Your task to perform on an android device: turn on improve location accuracy Image 0: 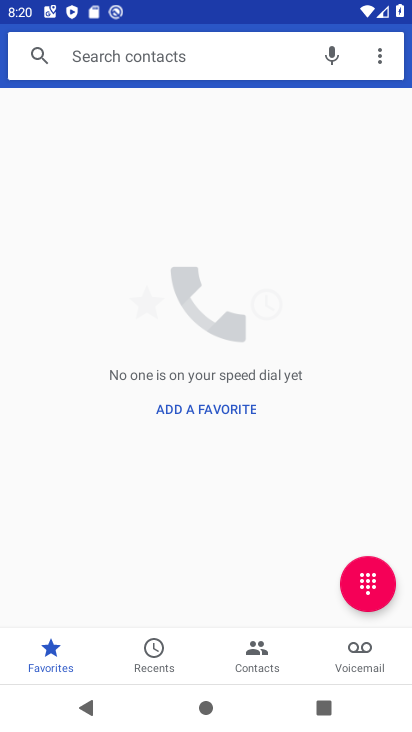
Step 0: press home button
Your task to perform on an android device: turn on improve location accuracy Image 1: 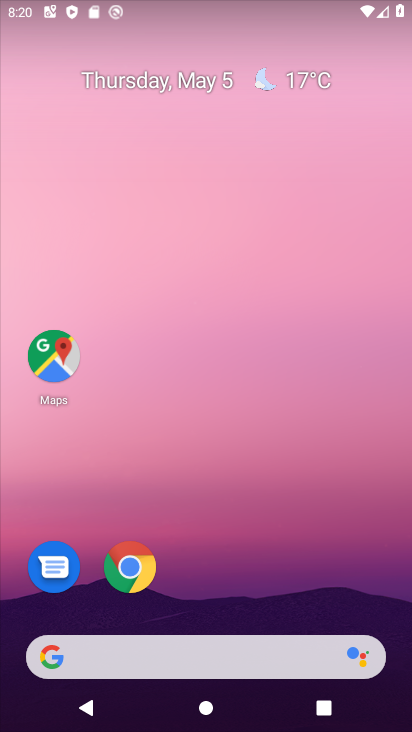
Step 1: drag from (229, 564) to (221, 33)
Your task to perform on an android device: turn on improve location accuracy Image 2: 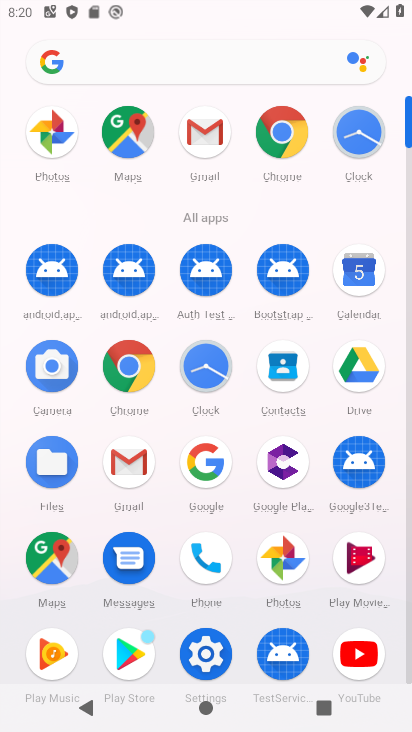
Step 2: click (206, 646)
Your task to perform on an android device: turn on improve location accuracy Image 3: 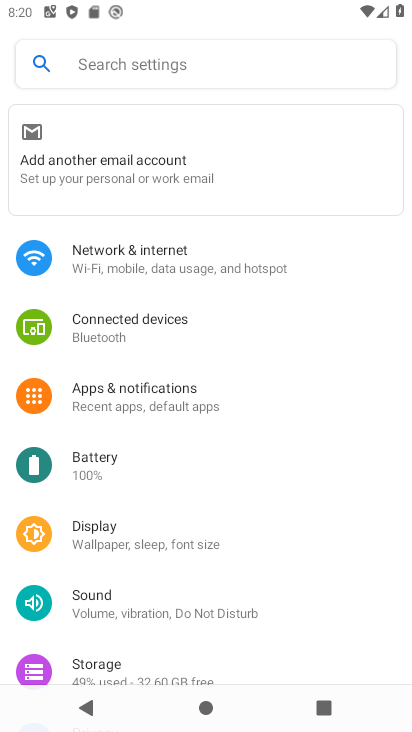
Step 3: drag from (303, 644) to (296, 226)
Your task to perform on an android device: turn on improve location accuracy Image 4: 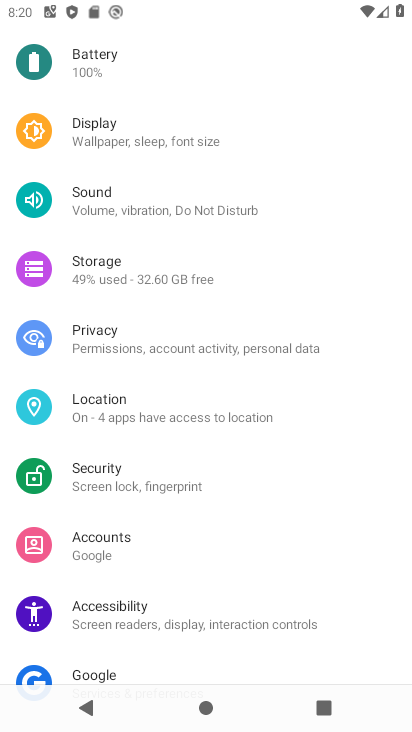
Step 4: click (184, 408)
Your task to perform on an android device: turn on improve location accuracy Image 5: 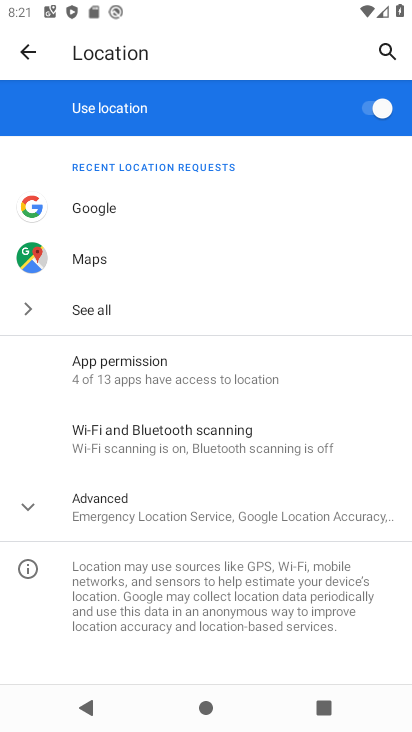
Step 5: click (24, 494)
Your task to perform on an android device: turn on improve location accuracy Image 6: 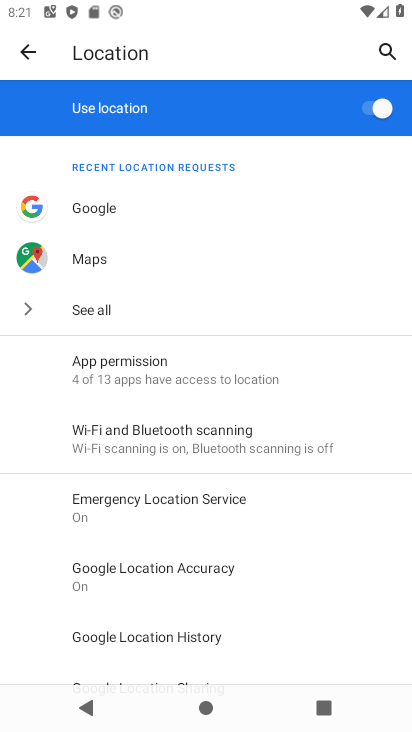
Step 6: click (144, 570)
Your task to perform on an android device: turn on improve location accuracy Image 7: 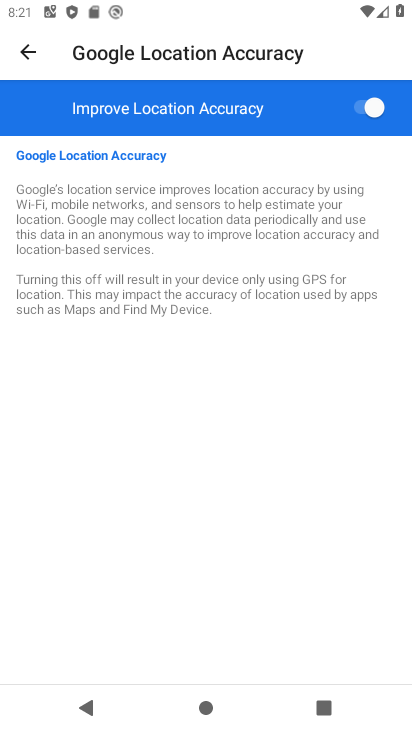
Step 7: task complete